Your task to perform on an android device: Open Youtube and go to "Your channel" Image 0: 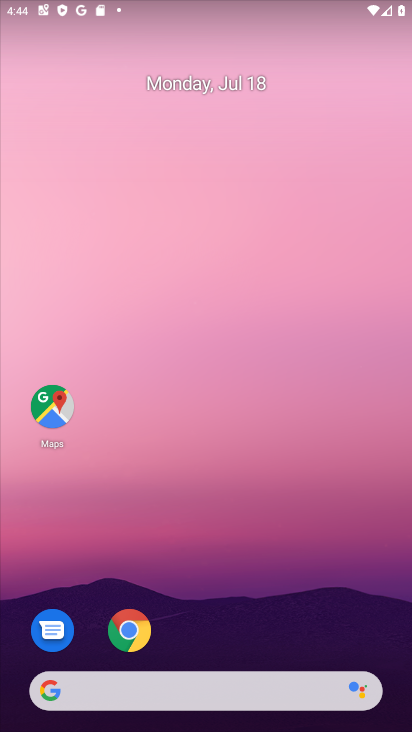
Step 0: press home button
Your task to perform on an android device: Open Youtube and go to "Your channel" Image 1: 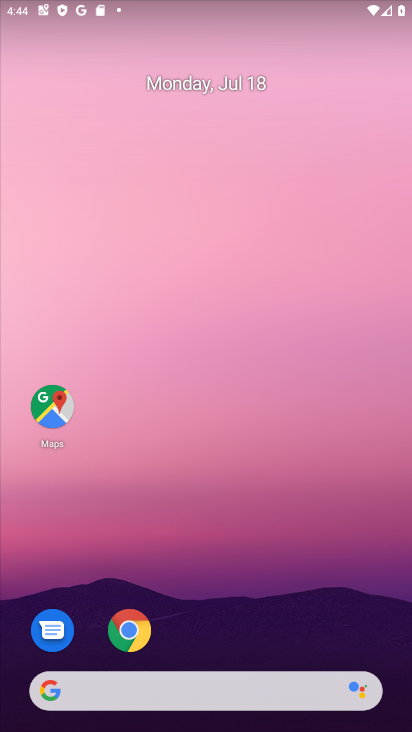
Step 1: drag from (229, 649) to (245, 4)
Your task to perform on an android device: Open Youtube and go to "Your channel" Image 2: 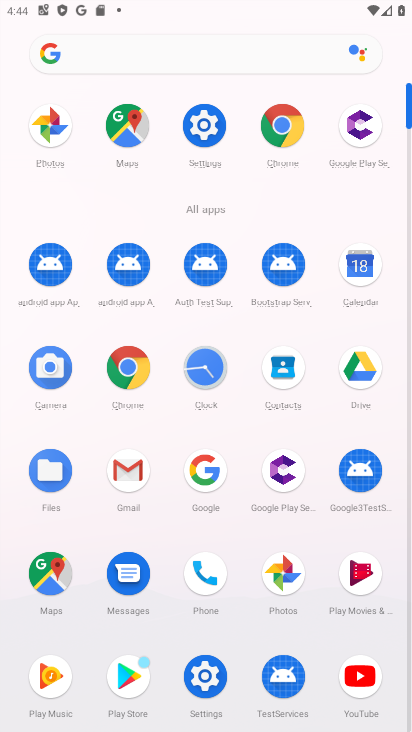
Step 2: click (360, 672)
Your task to perform on an android device: Open Youtube and go to "Your channel" Image 3: 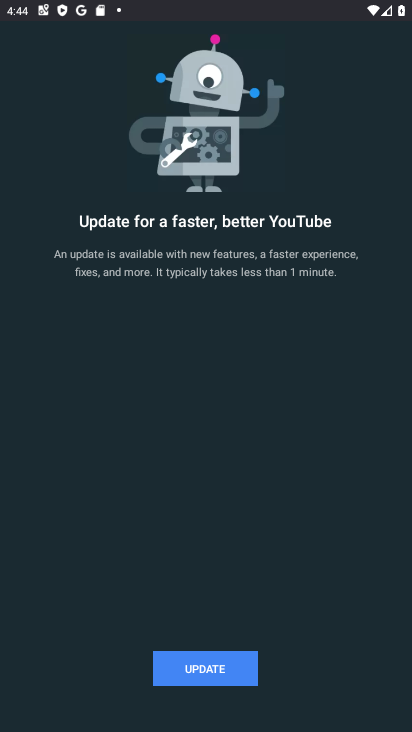
Step 3: click (217, 671)
Your task to perform on an android device: Open Youtube and go to "Your channel" Image 4: 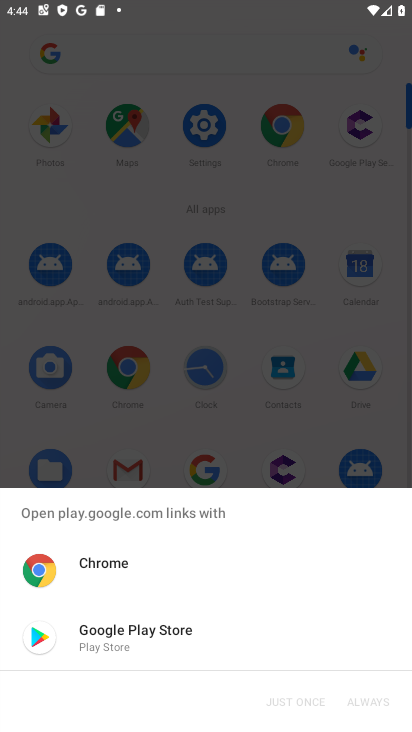
Step 4: click (146, 624)
Your task to perform on an android device: Open Youtube and go to "Your channel" Image 5: 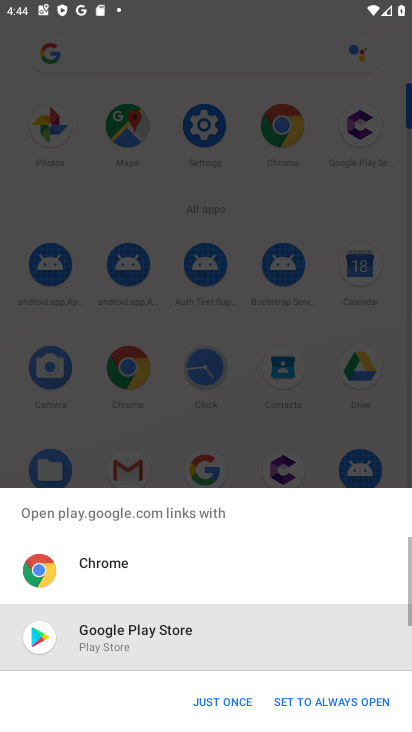
Step 5: click (215, 706)
Your task to perform on an android device: Open Youtube and go to "Your channel" Image 6: 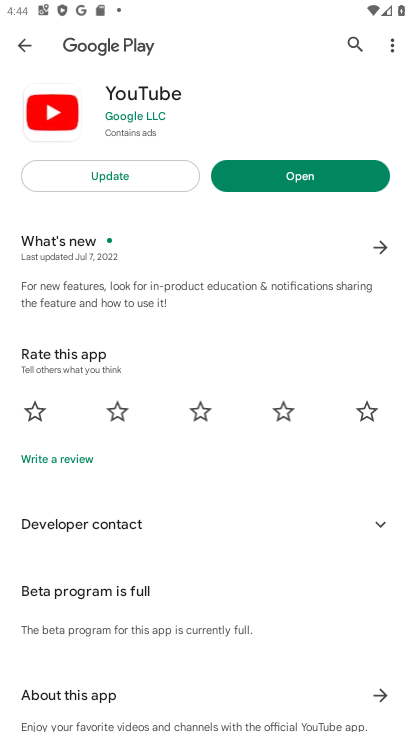
Step 6: click (105, 156)
Your task to perform on an android device: Open Youtube and go to "Your channel" Image 7: 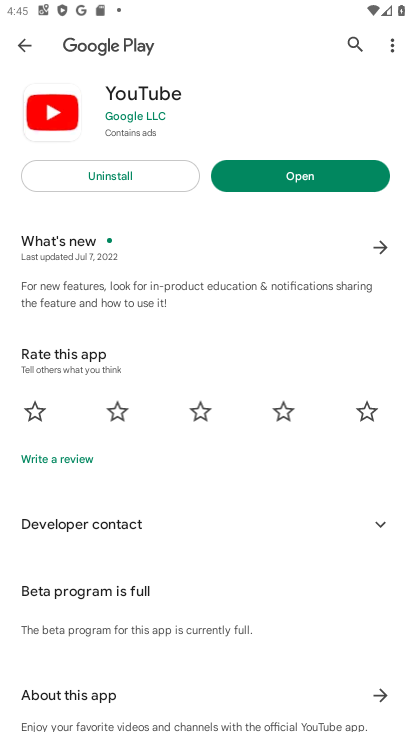
Step 7: click (314, 178)
Your task to perform on an android device: Open Youtube and go to "Your channel" Image 8: 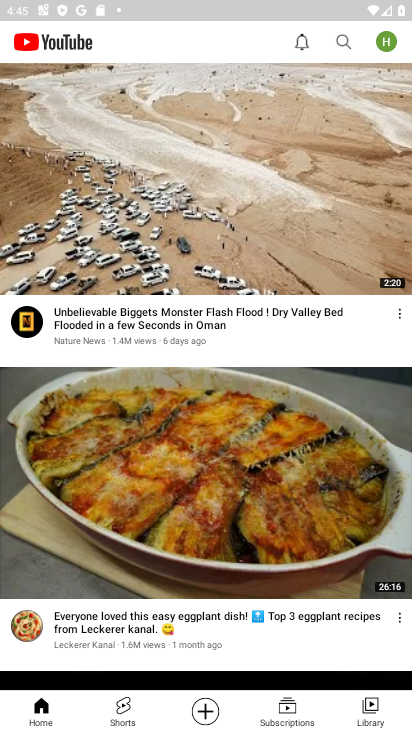
Step 8: click (390, 33)
Your task to perform on an android device: Open Youtube and go to "Your channel" Image 9: 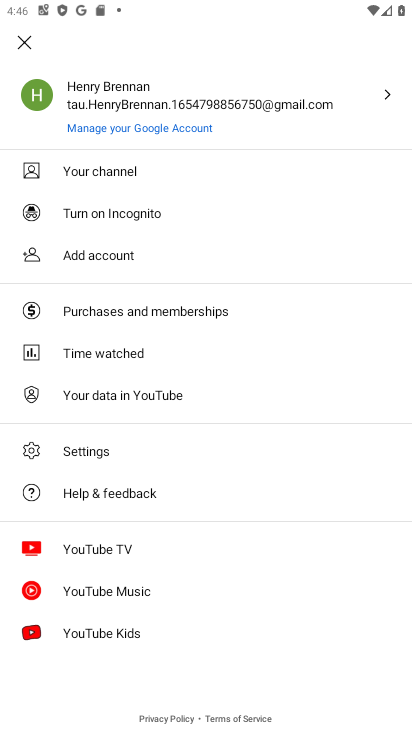
Step 9: click (110, 180)
Your task to perform on an android device: Open Youtube and go to "Your channel" Image 10: 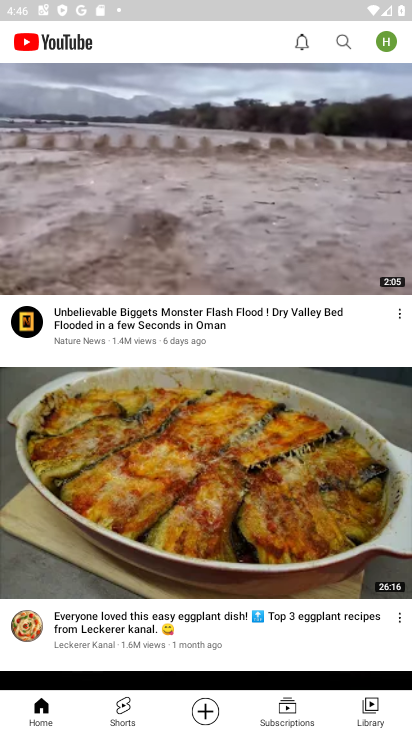
Step 10: task complete